Your task to perform on an android device: add a contact Image 0: 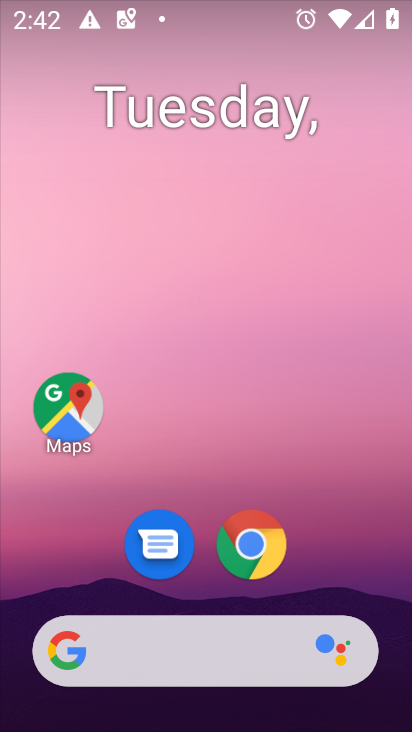
Step 0: drag from (327, 539) to (249, 113)
Your task to perform on an android device: add a contact Image 1: 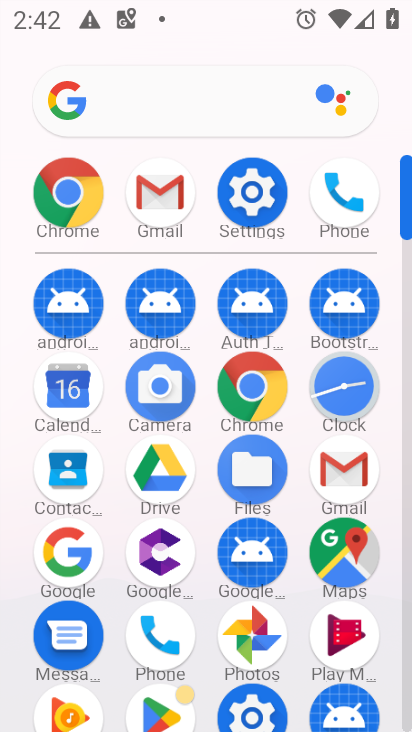
Step 1: click (79, 473)
Your task to perform on an android device: add a contact Image 2: 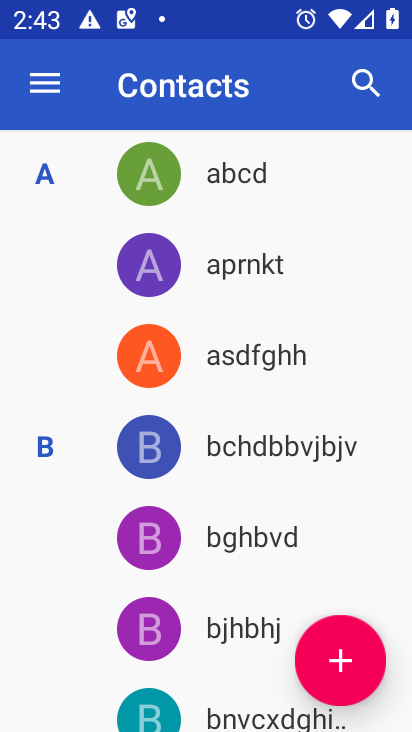
Step 2: click (328, 673)
Your task to perform on an android device: add a contact Image 3: 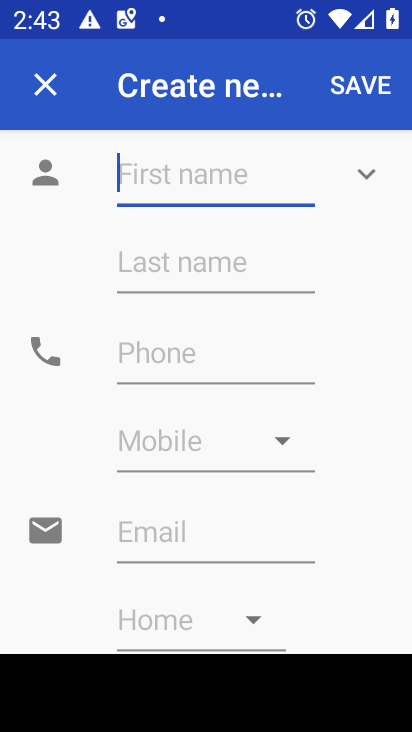
Step 3: type "jorden"
Your task to perform on an android device: add a contact Image 4: 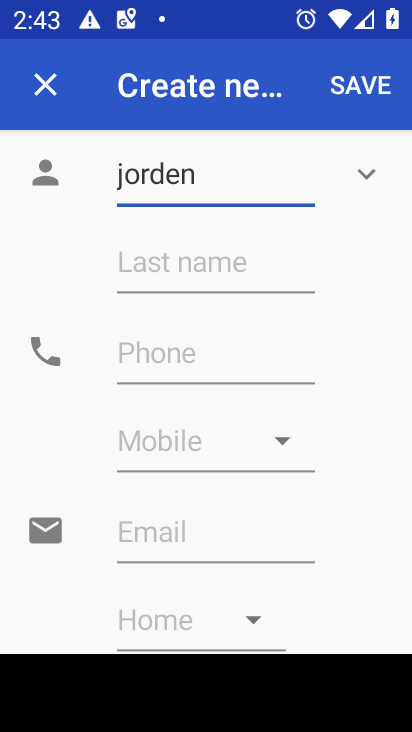
Step 4: click (367, 93)
Your task to perform on an android device: add a contact Image 5: 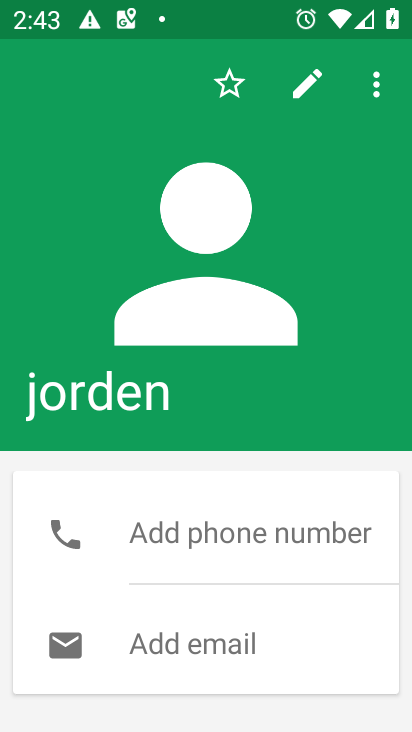
Step 5: task complete